Your task to perform on an android device: empty trash in the gmail app Image 0: 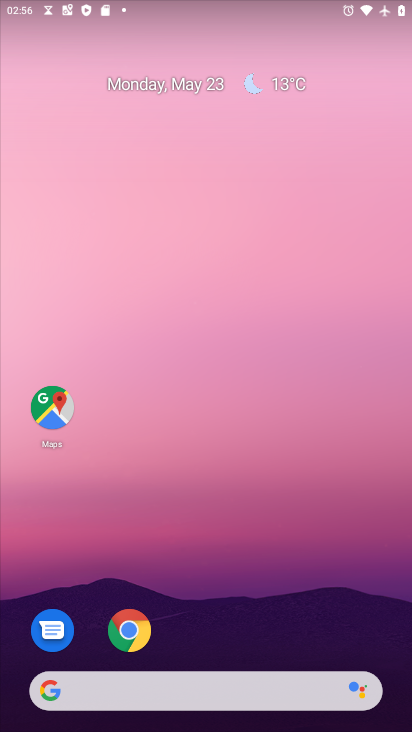
Step 0: drag from (320, 614) to (179, 103)
Your task to perform on an android device: empty trash in the gmail app Image 1: 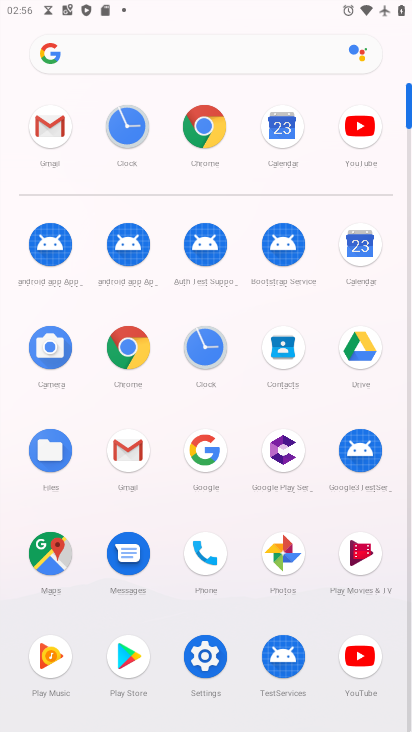
Step 1: click (128, 447)
Your task to perform on an android device: empty trash in the gmail app Image 2: 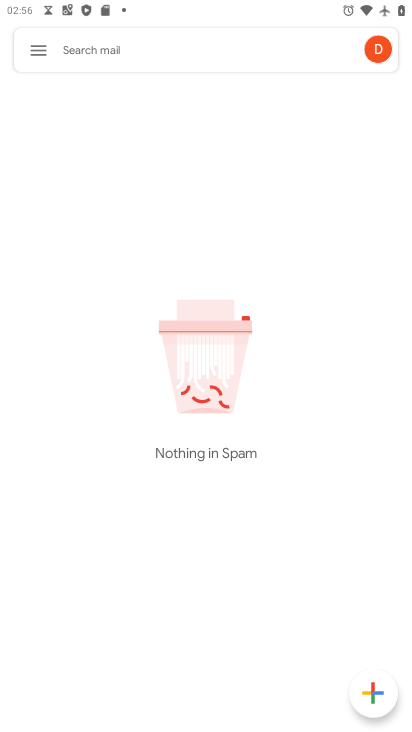
Step 2: click (49, 53)
Your task to perform on an android device: empty trash in the gmail app Image 3: 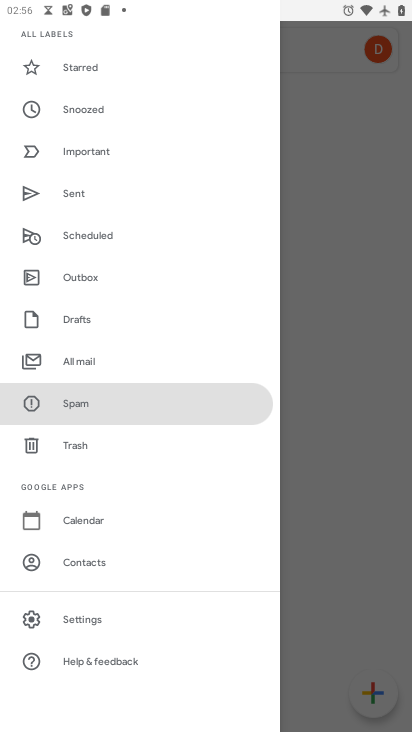
Step 3: click (112, 461)
Your task to perform on an android device: empty trash in the gmail app Image 4: 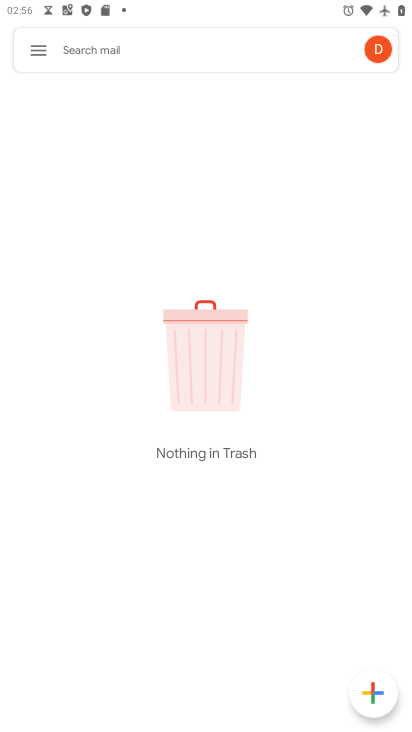
Step 4: task complete